Your task to perform on an android device: Open location settings Image 0: 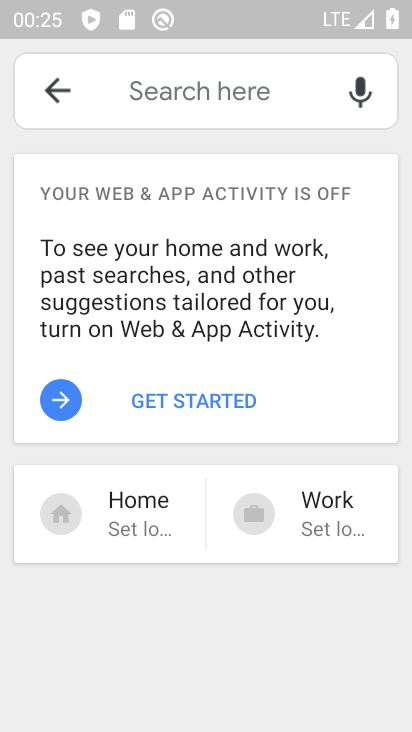
Step 0: press home button
Your task to perform on an android device: Open location settings Image 1: 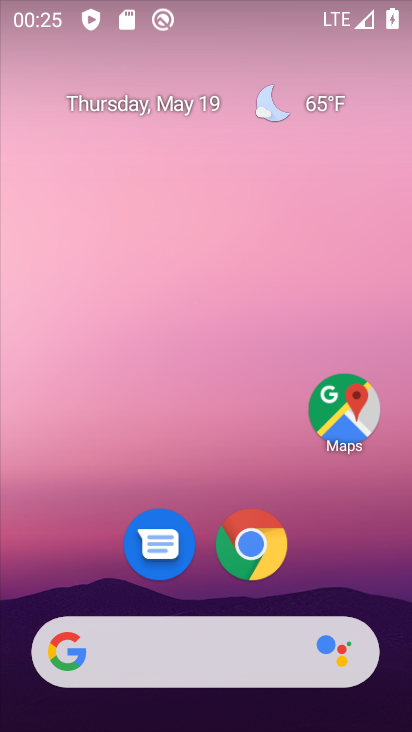
Step 1: drag from (345, 562) to (336, 153)
Your task to perform on an android device: Open location settings Image 2: 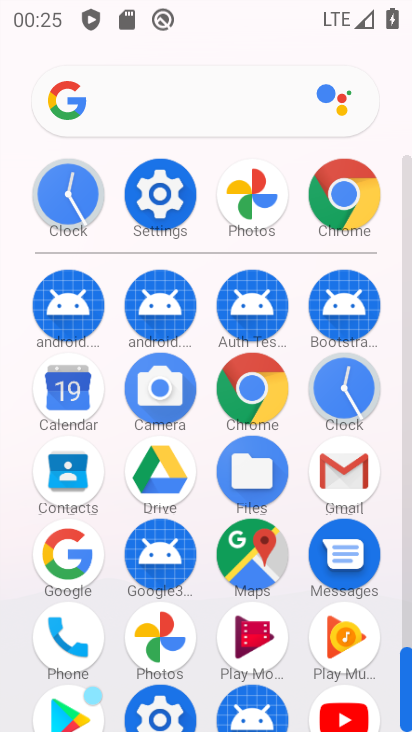
Step 2: click (166, 194)
Your task to perform on an android device: Open location settings Image 3: 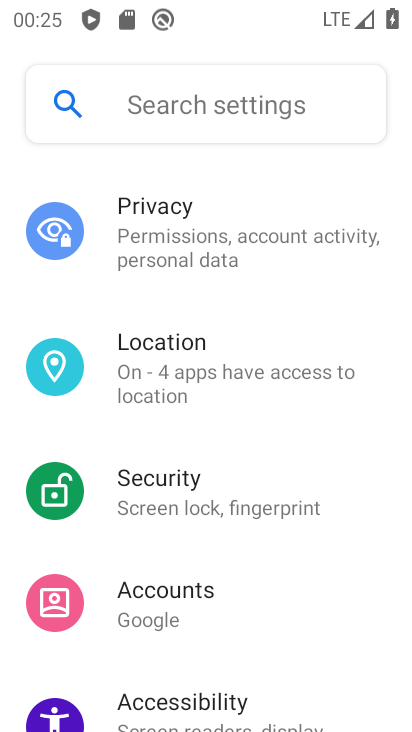
Step 3: drag from (351, 616) to (347, 449)
Your task to perform on an android device: Open location settings Image 4: 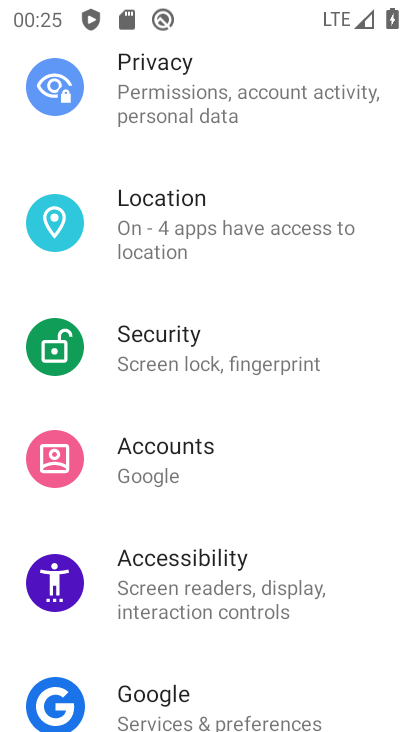
Step 4: drag from (346, 640) to (353, 494)
Your task to perform on an android device: Open location settings Image 5: 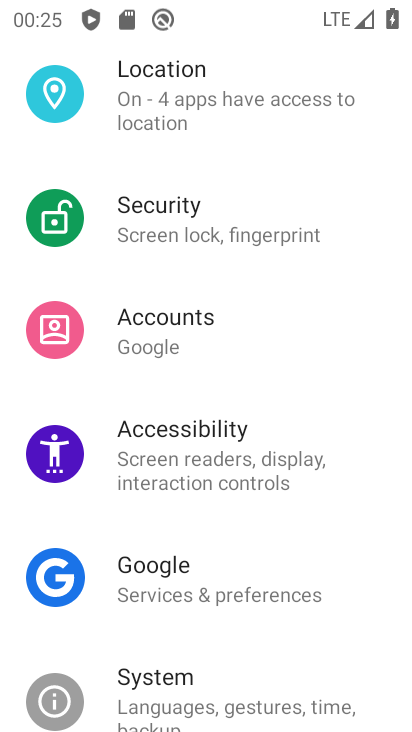
Step 5: drag from (349, 627) to (340, 546)
Your task to perform on an android device: Open location settings Image 6: 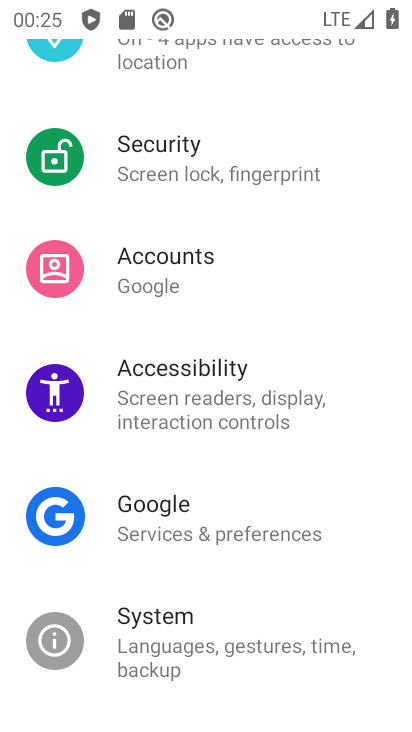
Step 6: drag from (321, 642) to (325, 463)
Your task to perform on an android device: Open location settings Image 7: 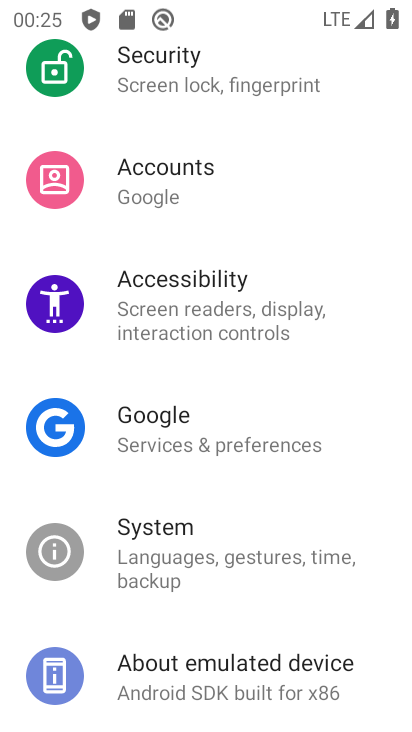
Step 7: drag from (352, 608) to (352, 407)
Your task to perform on an android device: Open location settings Image 8: 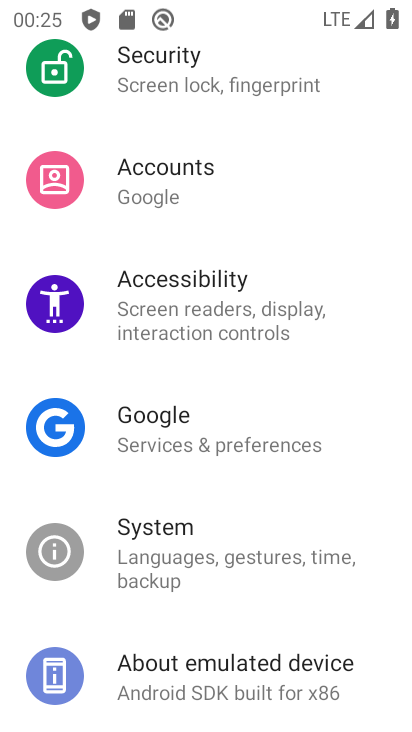
Step 8: drag from (358, 354) to (345, 478)
Your task to perform on an android device: Open location settings Image 9: 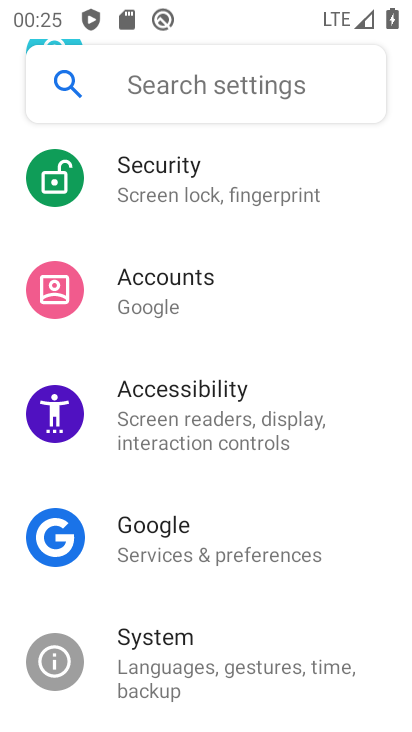
Step 9: drag from (342, 304) to (325, 480)
Your task to perform on an android device: Open location settings Image 10: 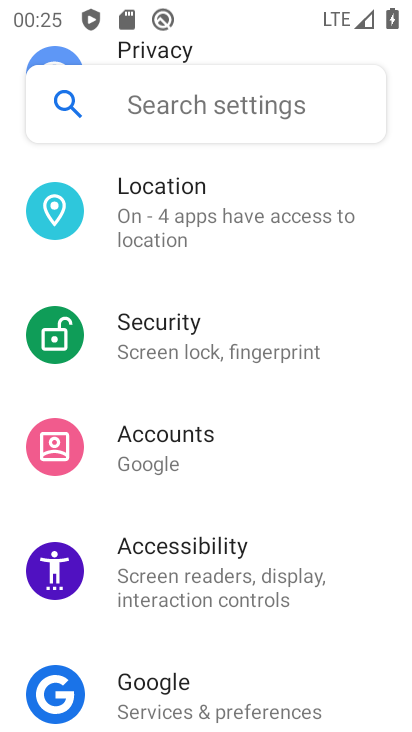
Step 10: drag from (357, 305) to (347, 466)
Your task to perform on an android device: Open location settings Image 11: 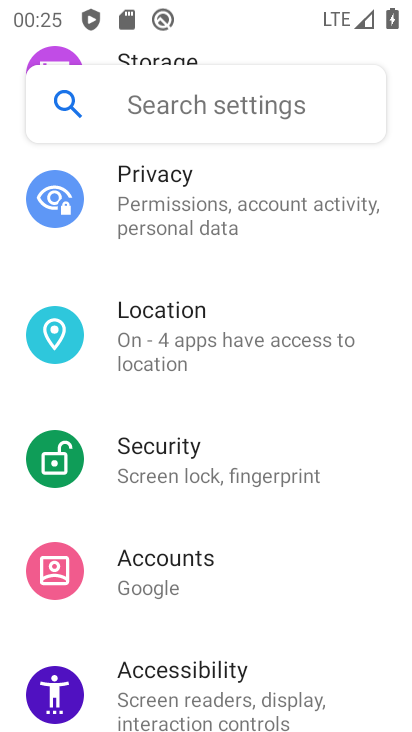
Step 11: drag from (359, 299) to (349, 490)
Your task to perform on an android device: Open location settings Image 12: 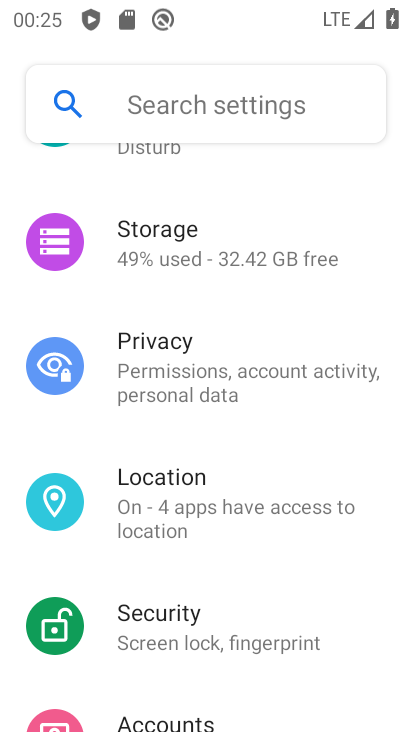
Step 12: drag from (367, 256) to (358, 439)
Your task to perform on an android device: Open location settings Image 13: 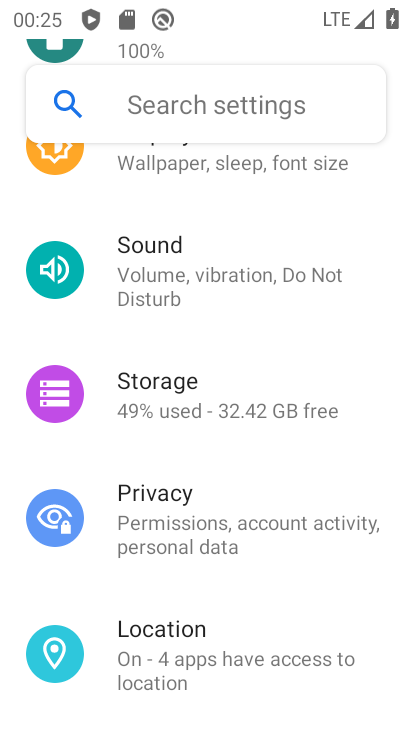
Step 13: drag from (367, 223) to (372, 453)
Your task to perform on an android device: Open location settings Image 14: 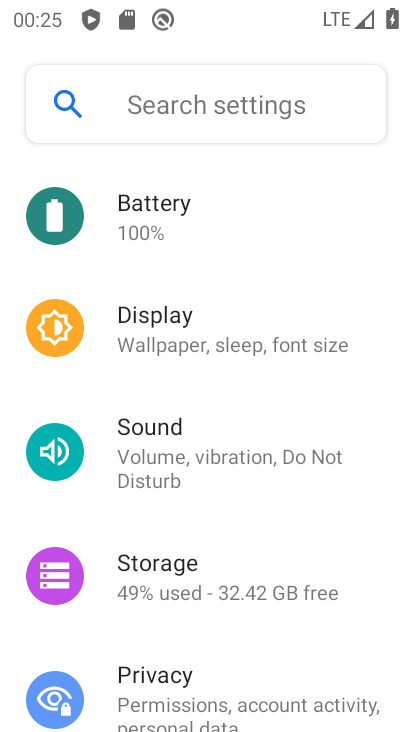
Step 14: drag from (367, 233) to (368, 429)
Your task to perform on an android device: Open location settings Image 15: 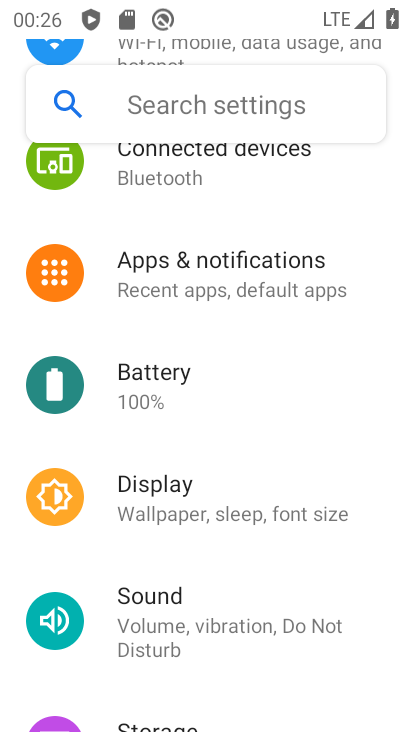
Step 15: drag from (355, 218) to (359, 430)
Your task to perform on an android device: Open location settings Image 16: 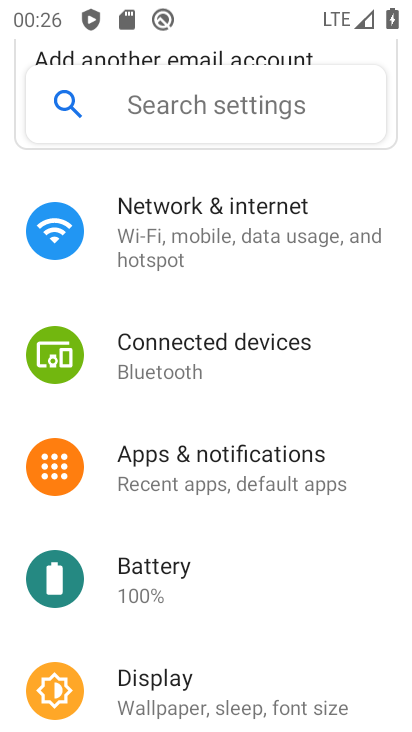
Step 16: drag from (359, 531) to (350, 320)
Your task to perform on an android device: Open location settings Image 17: 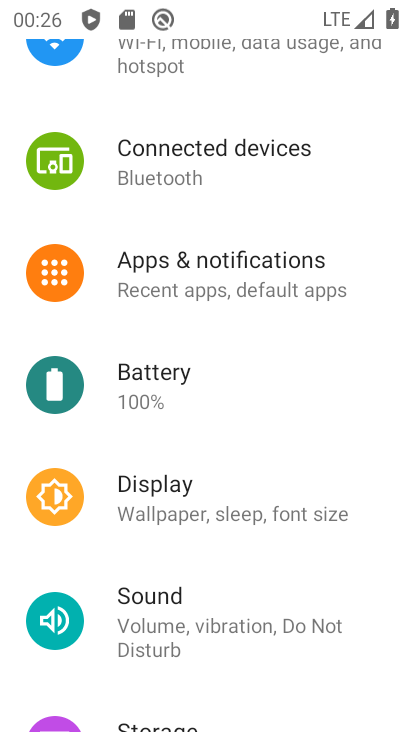
Step 17: drag from (344, 503) to (348, 320)
Your task to perform on an android device: Open location settings Image 18: 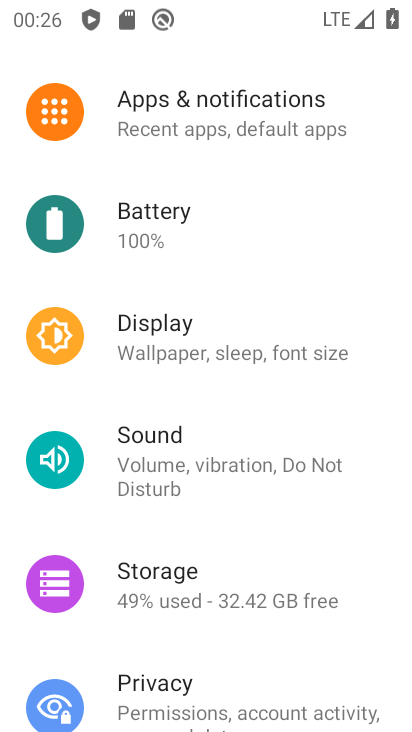
Step 18: drag from (346, 550) to (343, 393)
Your task to perform on an android device: Open location settings Image 19: 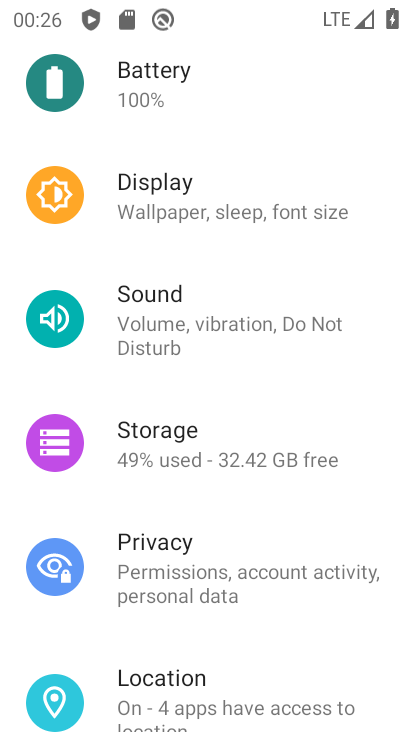
Step 19: drag from (355, 591) to (360, 407)
Your task to perform on an android device: Open location settings Image 20: 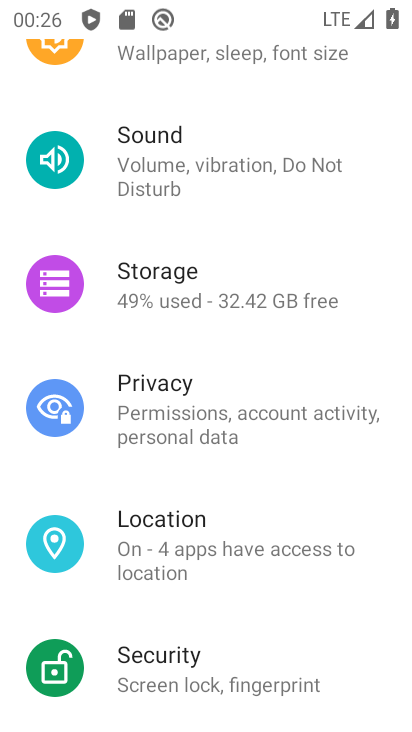
Step 20: drag from (344, 627) to (349, 460)
Your task to perform on an android device: Open location settings Image 21: 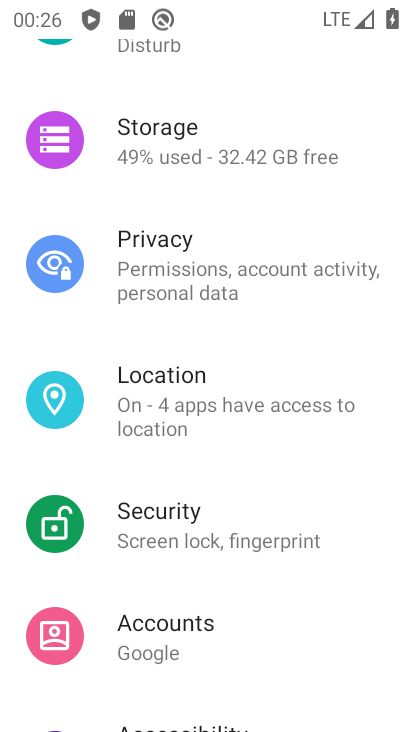
Step 21: click (280, 412)
Your task to perform on an android device: Open location settings Image 22: 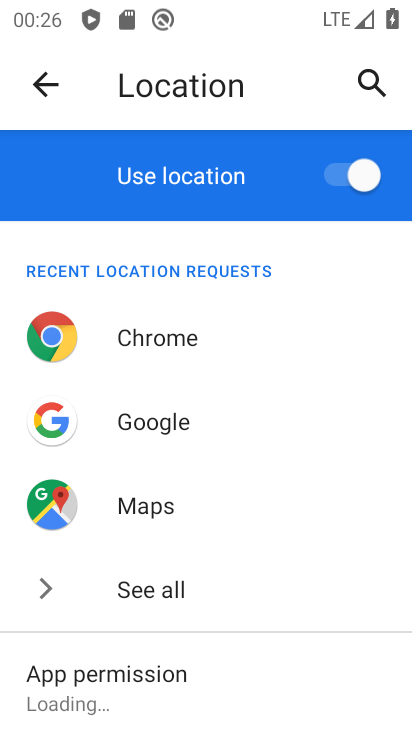
Step 22: task complete